Your task to perform on an android device: check battery use Image 0: 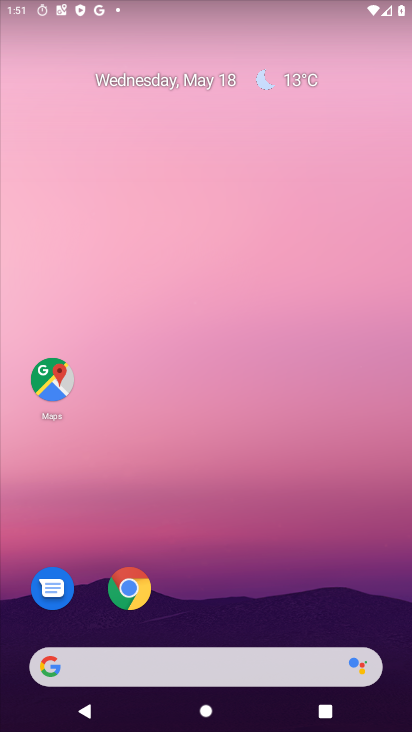
Step 0: drag from (185, 615) to (277, 218)
Your task to perform on an android device: check battery use Image 1: 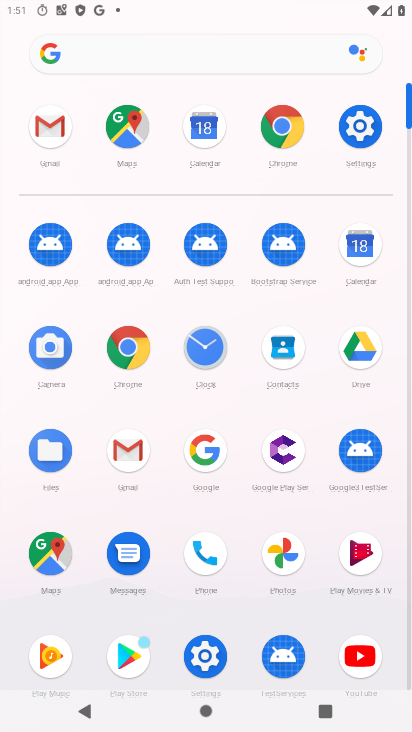
Step 1: click (210, 657)
Your task to perform on an android device: check battery use Image 2: 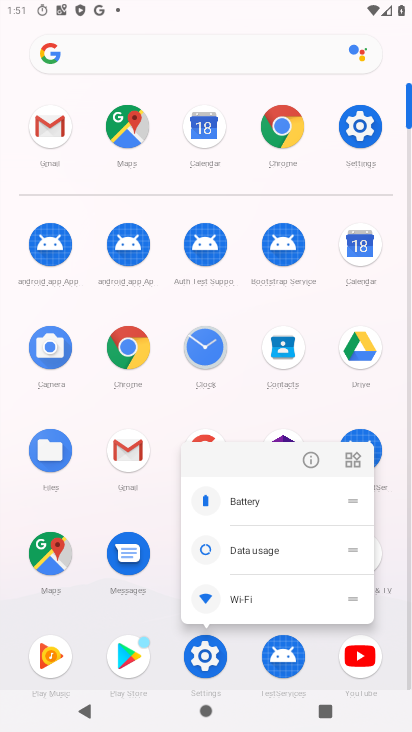
Step 2: click (303, 464)
Your task to perform on an android device: check battery use Image 3: 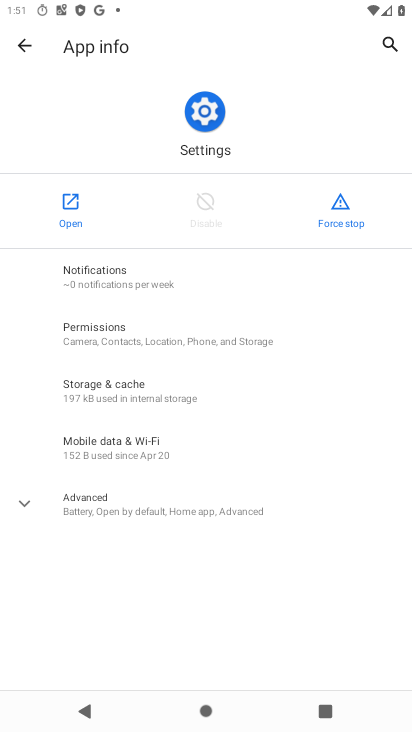
Step 3: click (67, 219)
Your task to perform on an android device: check battery use Image 4: 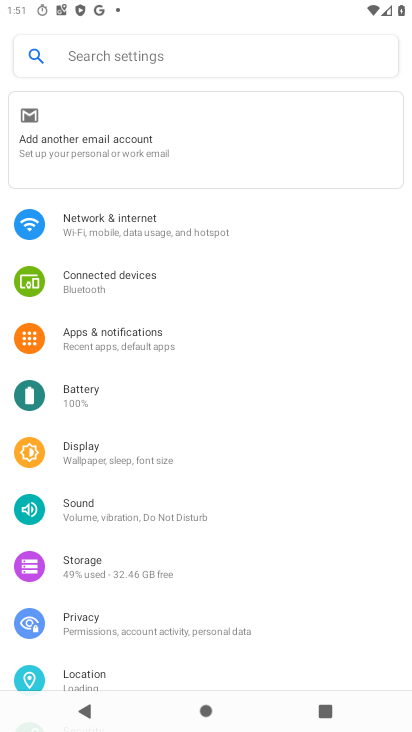
Step 4: click (94, 406)
Your task to perform on an android device: check battery use Image 5: 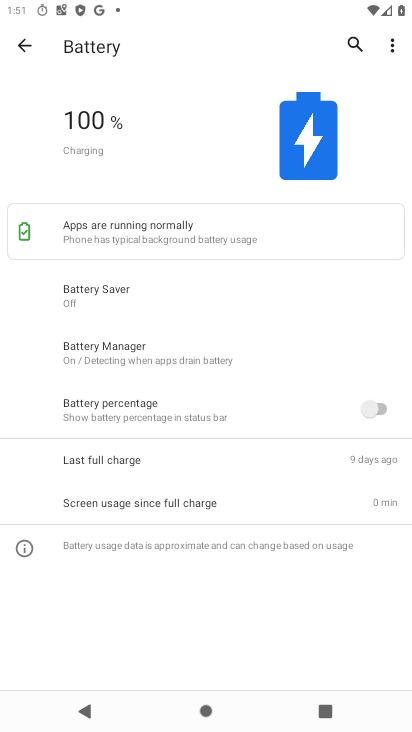
Step 5: click (390, 47)
Your task to perform on an android device: check battery use Image 6: 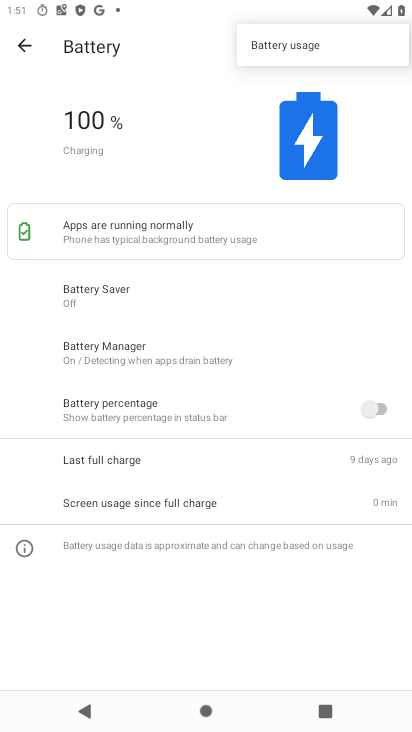
Step 6: click (318, 50)
Your task to perform on an android device: check battery use Image 7: 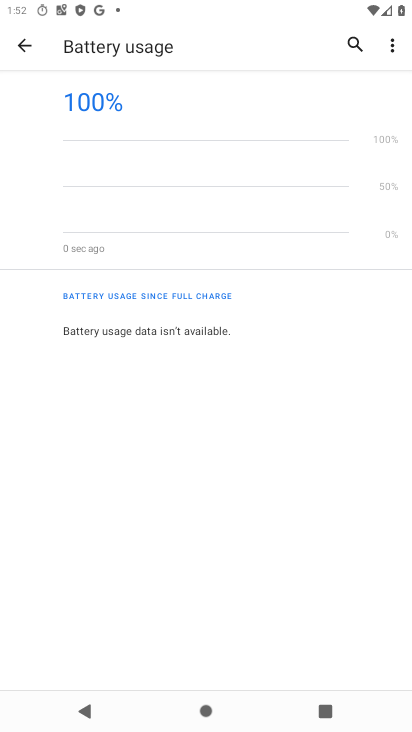
Step 7: task complete